Your task to perform on an android device: make emails show in primary in the gmail app Image 0: 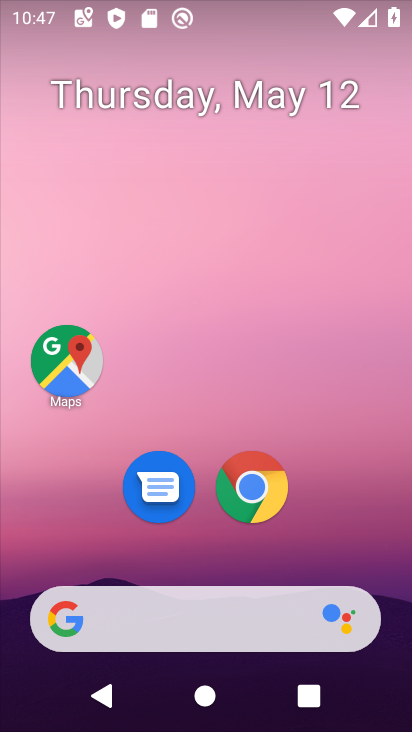
Step 0: press home button
Your task to perform on an android device: make emails show in primary in the gmail app Image 1: 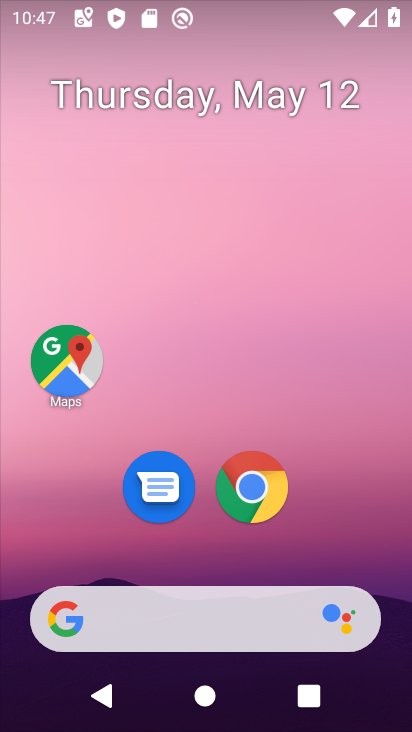
Step 1: drag from (29, 612) to (332, 151)
Your task to perform on an android device: make emails show in primary in the gmail app Image 2: 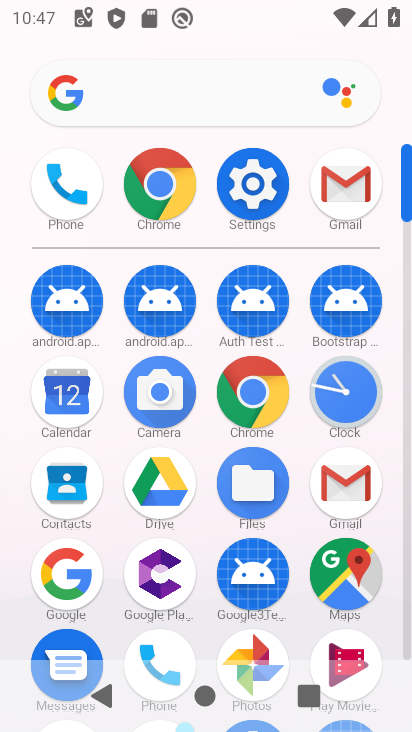
Step 2: click (345, 494)
Your task to perform on an android device: make emails show in primary in the gmail app Image 3: 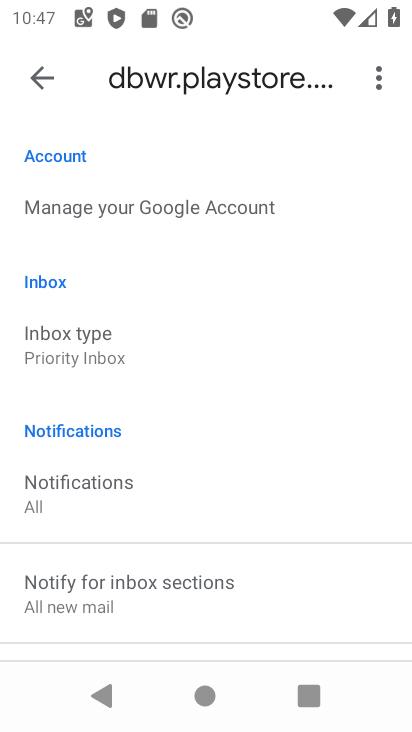
Step 3: press back button
Your task to perform on an android device: make emails show in primary in the gmail app Image 4: 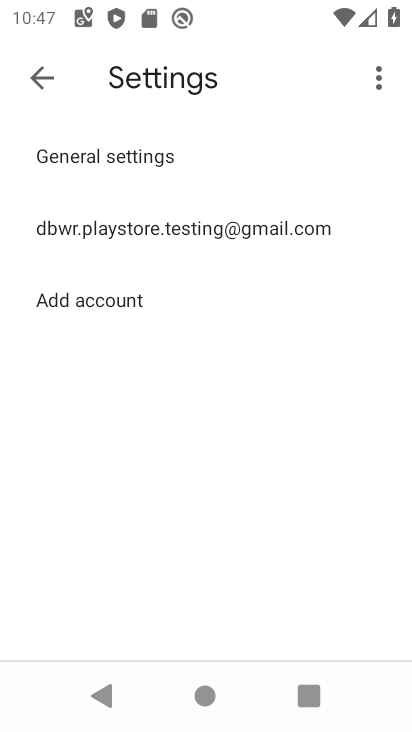
Step 4: press back button
Your task to perform on an android device: make emails show in primary in the gmail app Image 5: 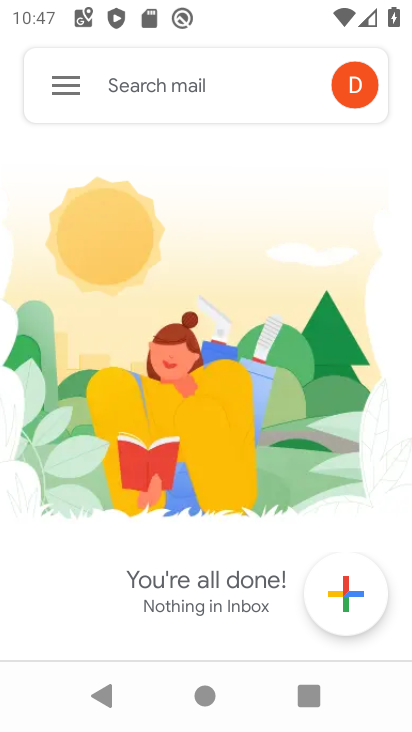
Step 5: click (62, 78)
Your task to perform on an android device: make emails show in primary in the gmail app Image 6: 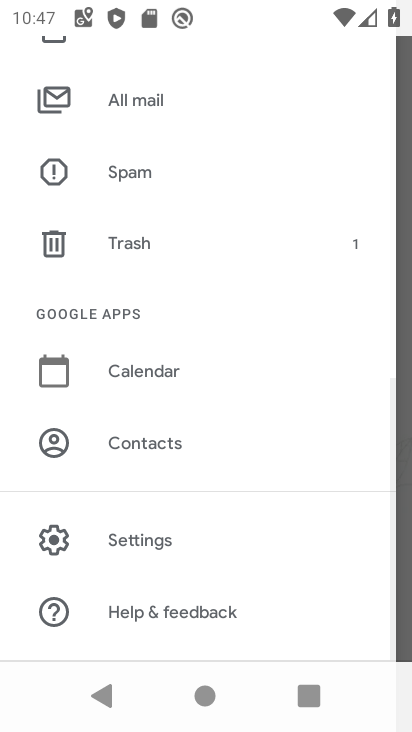
Step 6: drag from (160, 142) to (167, 571)
Your task to perform on an android device: make emails show in primary in the gmail app Image 7: 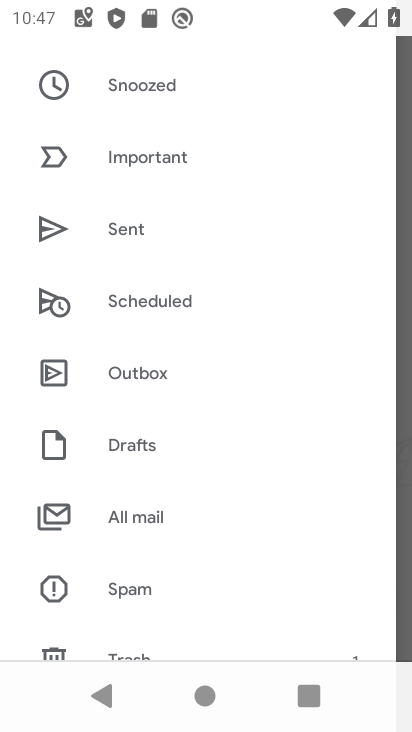
Step 7: drag from (153, 113) to (126, 590)
Your task to perform on an android device: make emails show in primary in the gmail app Image 8: 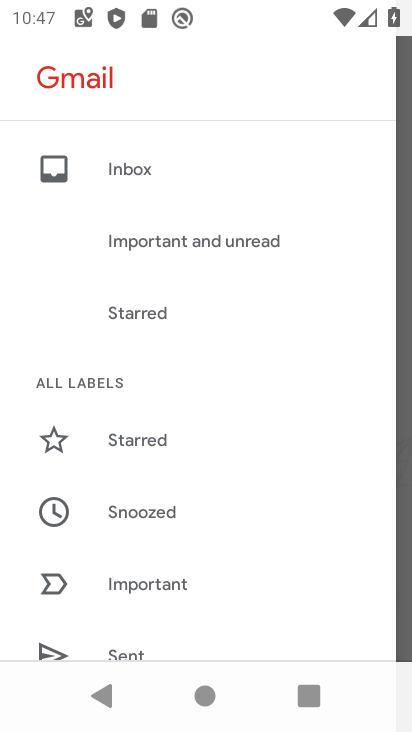
Step 8: click (204, 162)
Your task to perform on an android device: make emails show in primary in the gmail app Image 9: 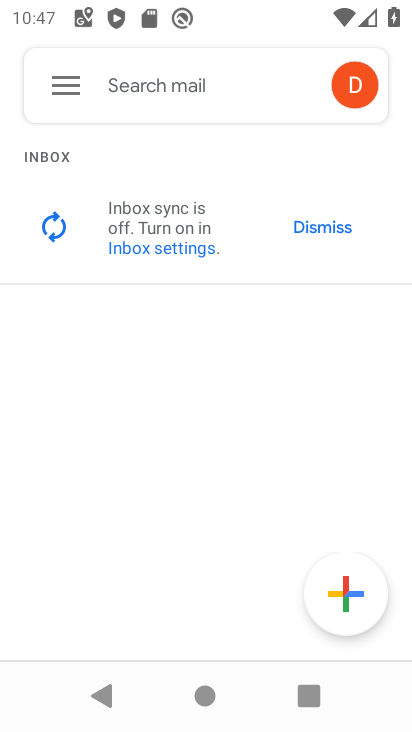
Step 9: task complete